Your task to perform on an android device: Go to accessibility settings Image 0: 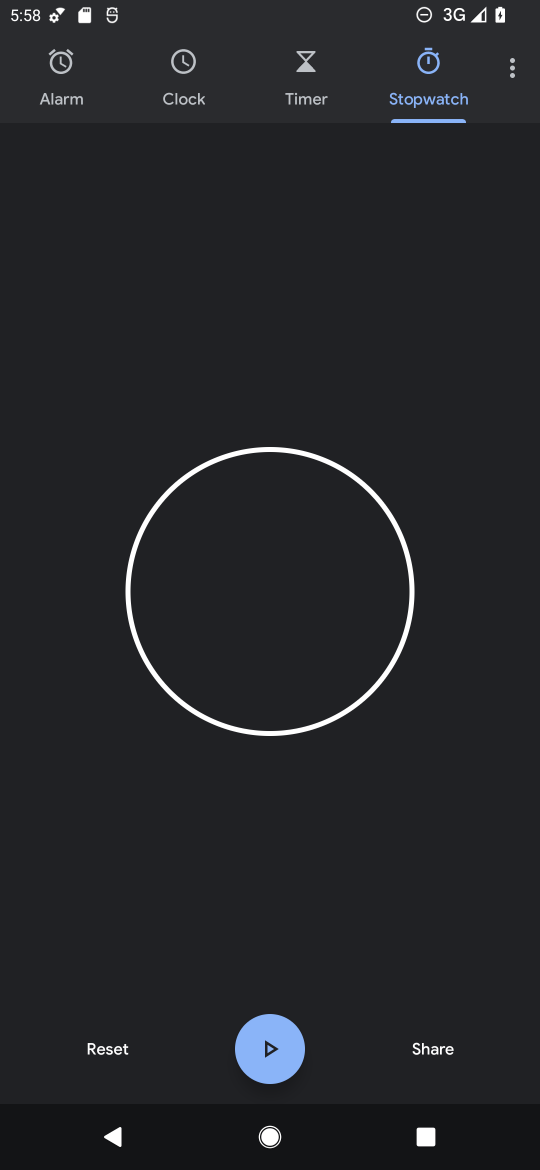
Step 0: press home button
Your task to perform on an android device: Go to accessibility settings Image 1: 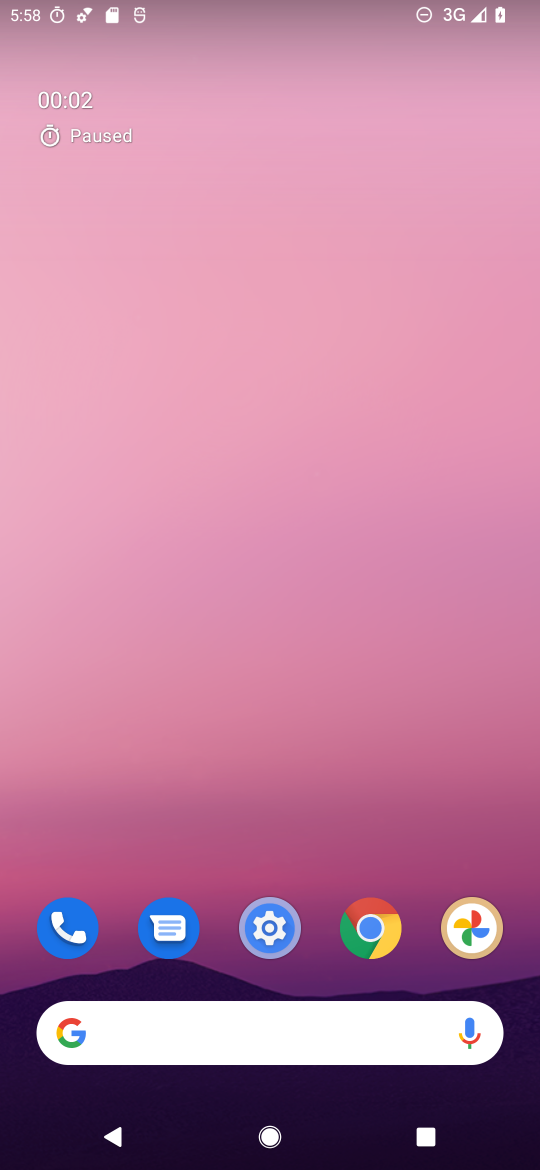
Step 1: drag from (426, 808) to (454, 70)
Your task to perform on an android device: Go to accessibility settings Image 2: 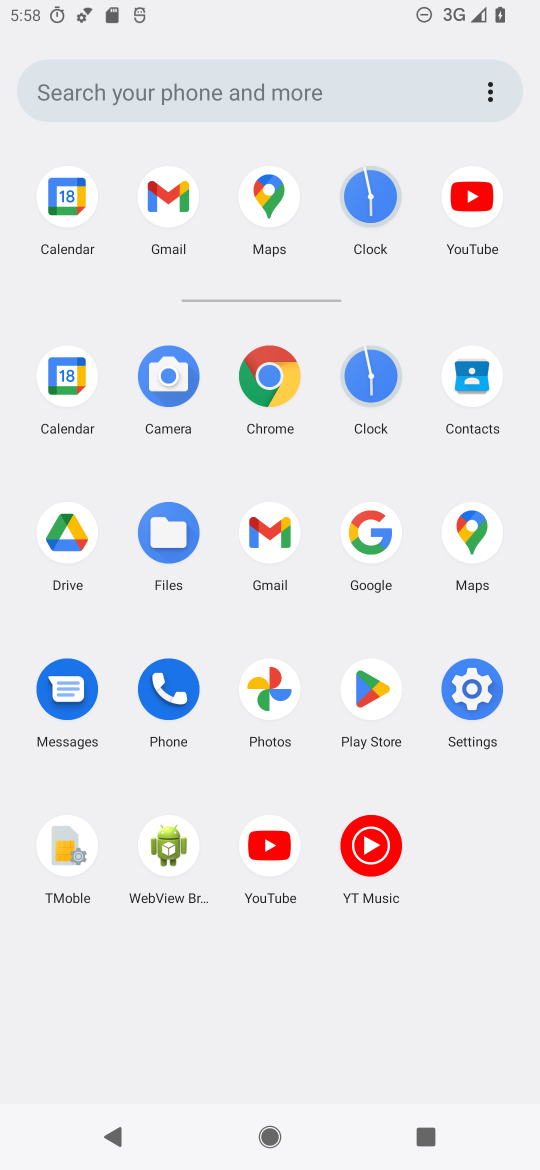
Step 2: click (477, 686)
Your task to perform on an android device: Go to accessibility settings Image 3: 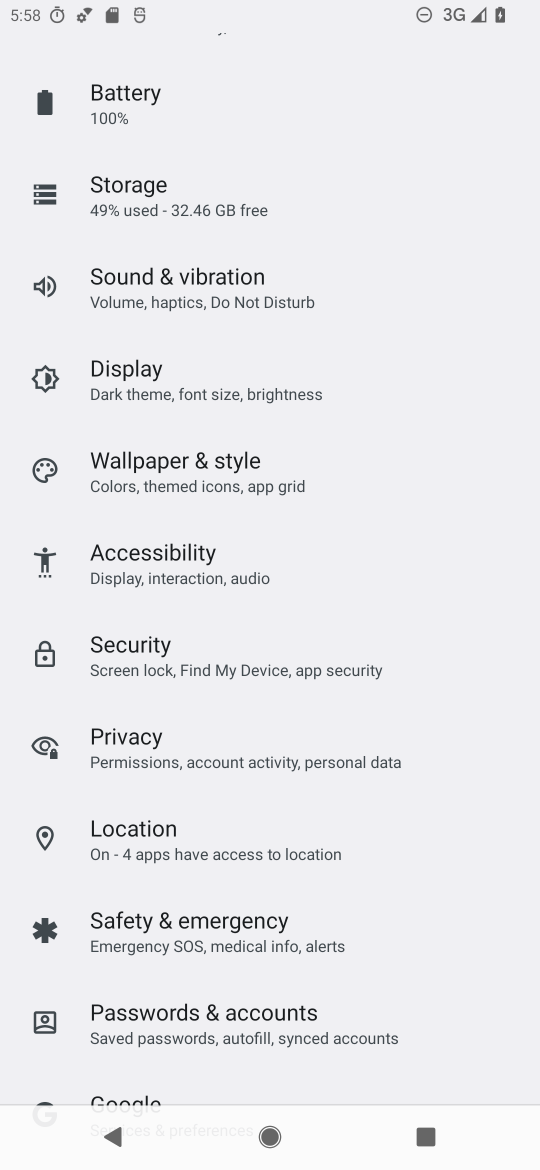
Step 3: click (145, 560)
Your task to perform on an android device: Go to accessibility settings Image 4: 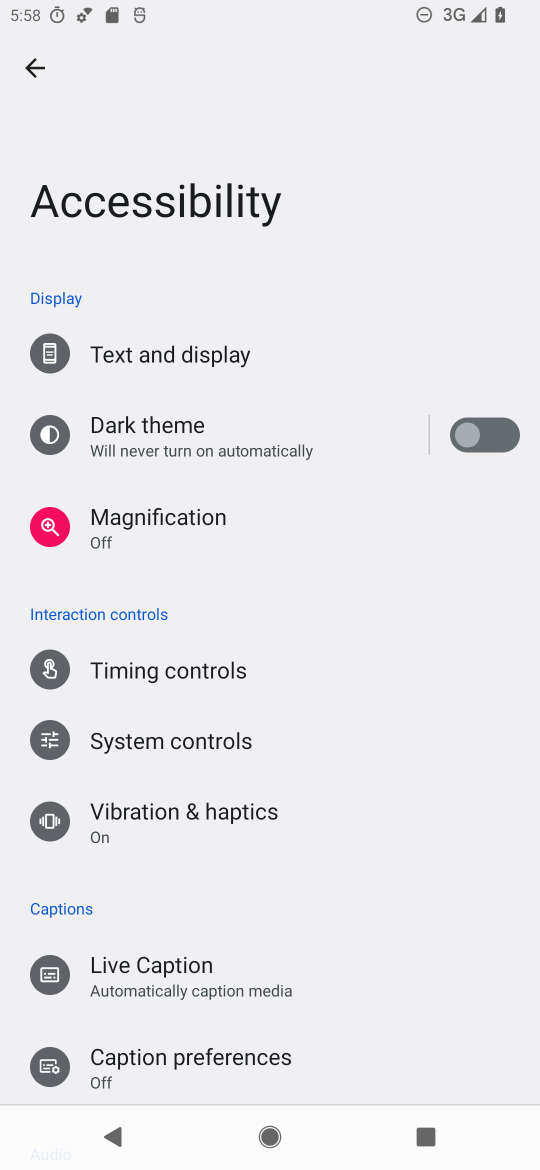
Step 4: task complete